Your task to perform on an android device: check out phone information Image 0: 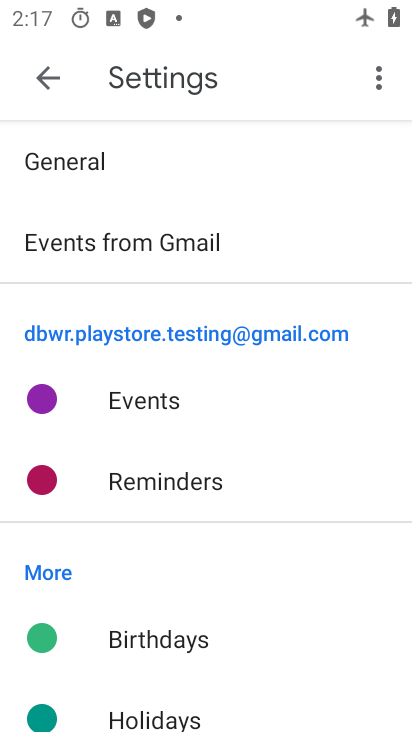
Step 0: press home button
Your task to perform on an android device: check out phone information Image 1: 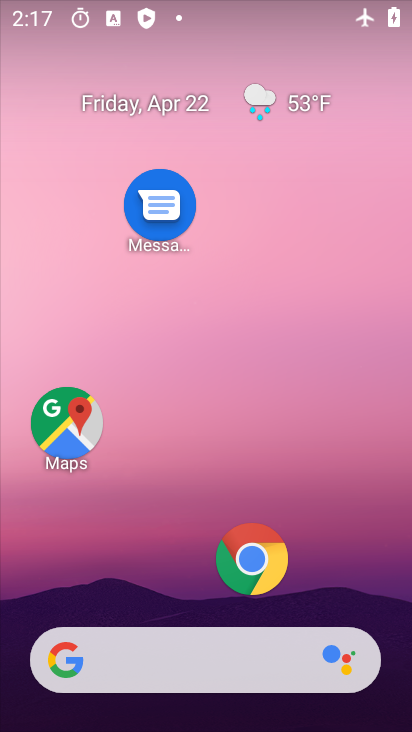
Step 1: drag from (173, 607) to (191, 145)
Your task to perform on an android device: check out phone information Image 2: 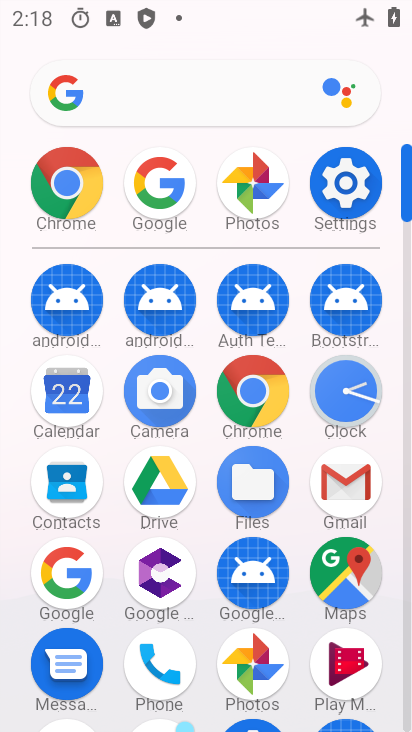
Step 2: click (165, 642)
Your task to perform on an android device: check out phone information Image 3: 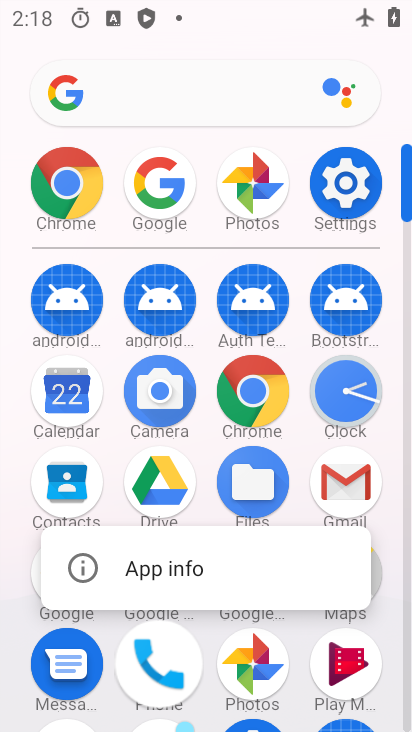
Step 3: click (165, 574)
Your task to perform on an android device: check out phone information Image 4: 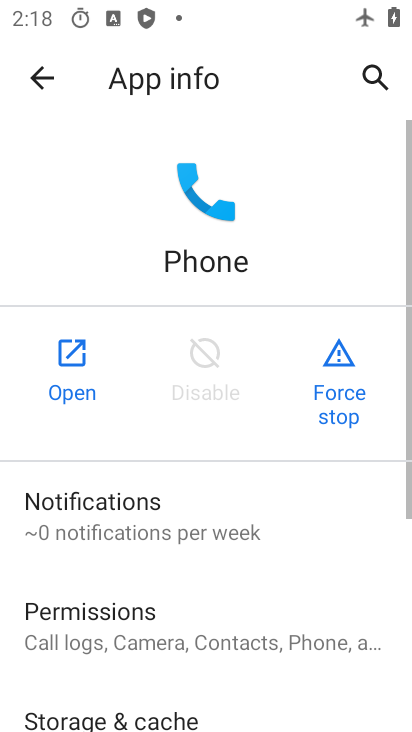
Step 4: drag from (174, 656) to (174, 206)
Your task to perform on an android device: check out phone information Image 5: 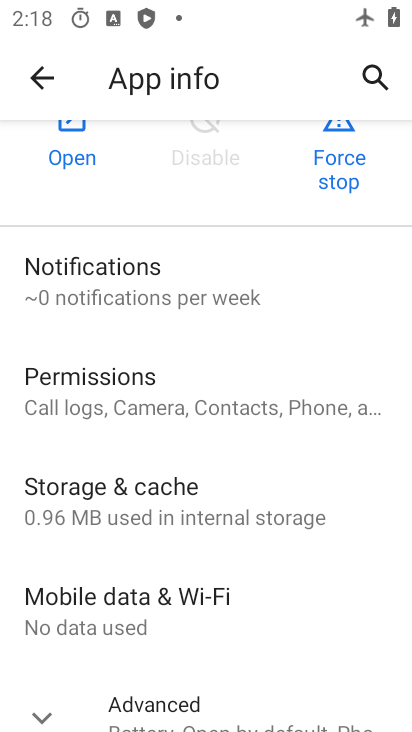
Step 5: click (220, 221)
Your task to perform on an android device: check out phone information Image 6: 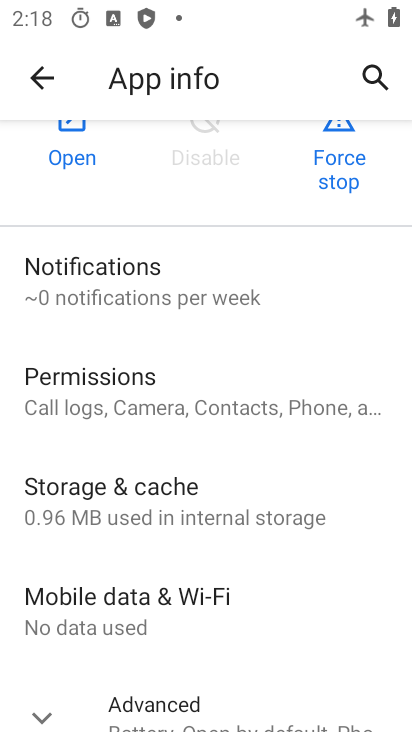
Step 6: click (190, 711)
Your task to perform on an android device: check out phone information Image 7: 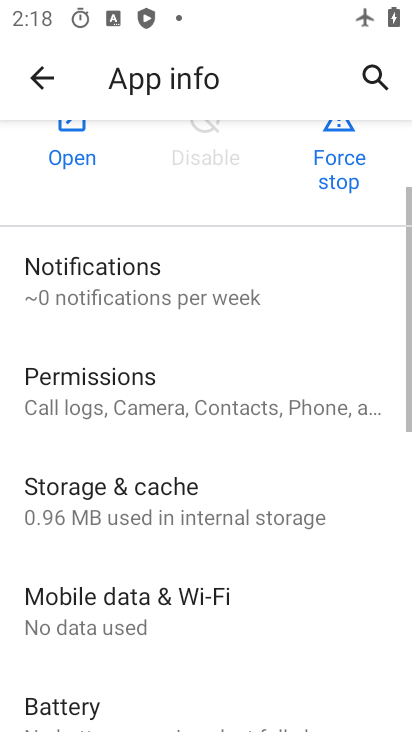
Step 7: task complete